Your task to perform on an android device: allow notifications from all sites in the chrome app Image 0: 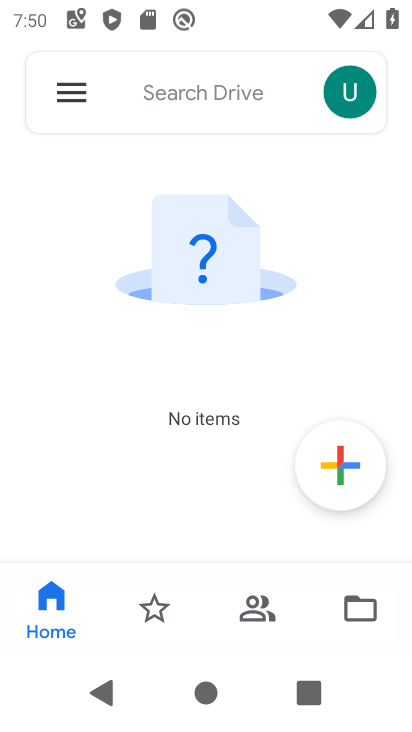
Step 0: press home button
Your task to perform on an android device: allow notifications from all sites in the chrome app Image 1: 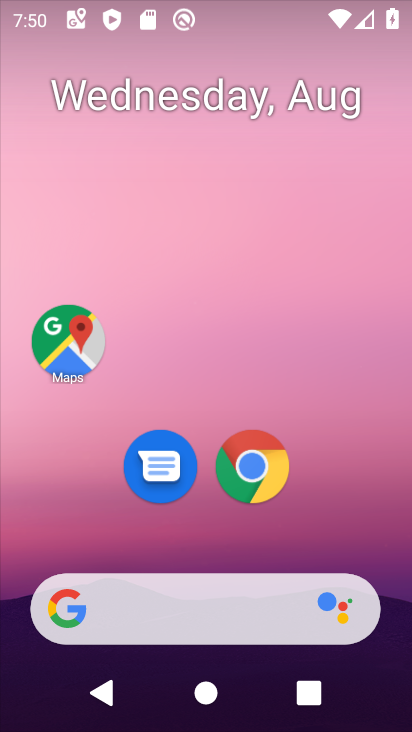
Step 1: drag from (333, 506) to (282, 29)
Your task to perform on an android device: allow notifications from all sites in the chrome app Image 2: 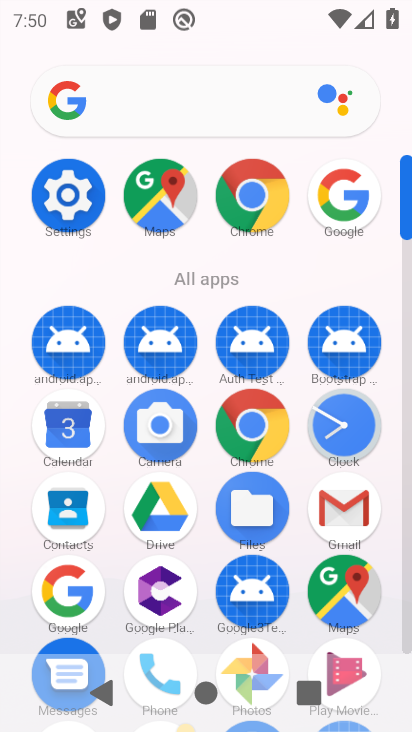
Step 2: click (260, 425)
Your task to perform on an android device: allow notifications from all sites in the chrome app Image 3: 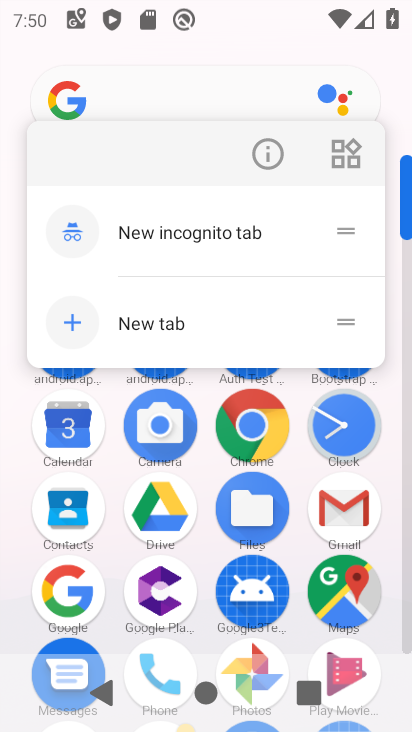
Step 3: click (258, 425)
Your task to perform on an android device: allow notifications from all sites in the chrome app Image 4: 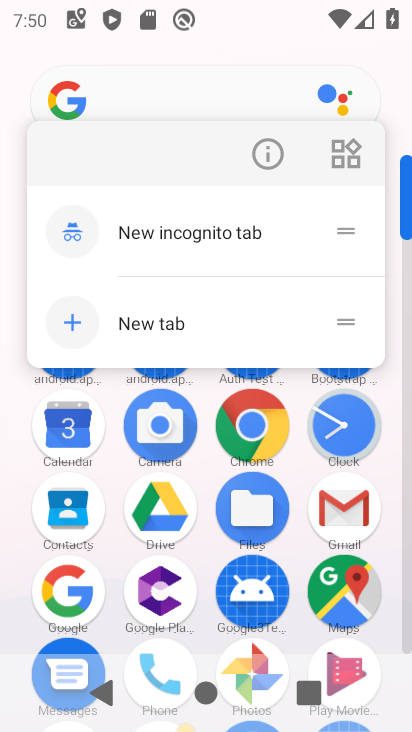
Step 4: click (253, 425)
Your task to perform on an android device: allow notifications from all sites in the chrome app Image 5: 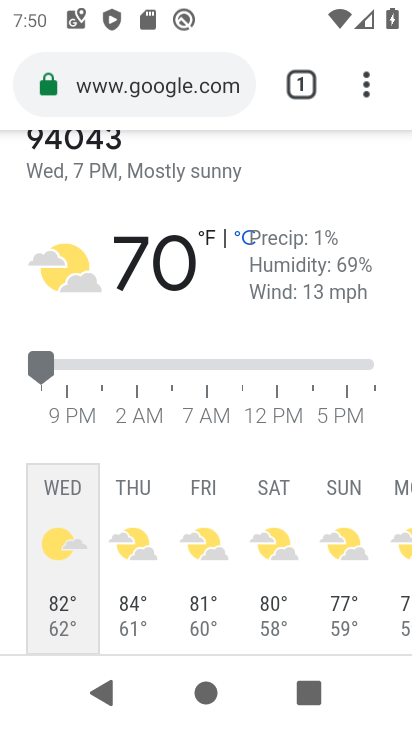
Step 5: drag from (374, 68) to (159, 514)
Your task to perform on an android device: allow notifications from all sites in the chrome app Image 6: 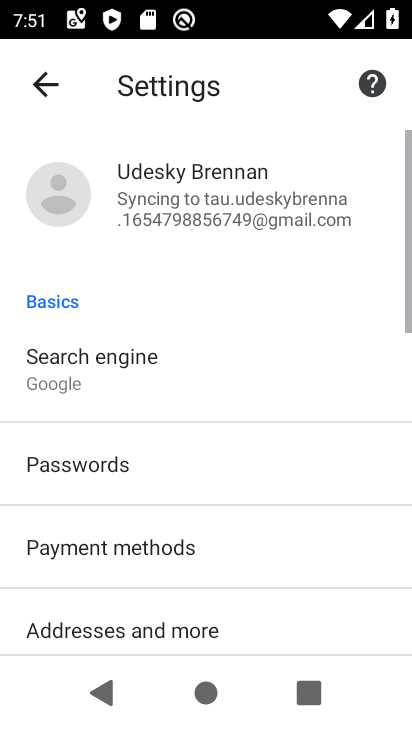
Step 6: drag from (320, 588) to (296, 108)
Your task to perform on an android device: allow notifications from all sites in the chrome app Image 7: 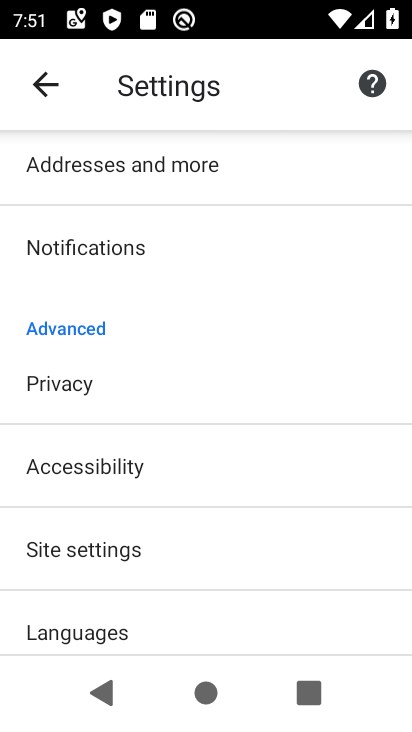
Step 7: drag from (289, 561) to (216, 505)
Your task to perform on an android device: allow notifications from all sites in the chrome app Image 8: 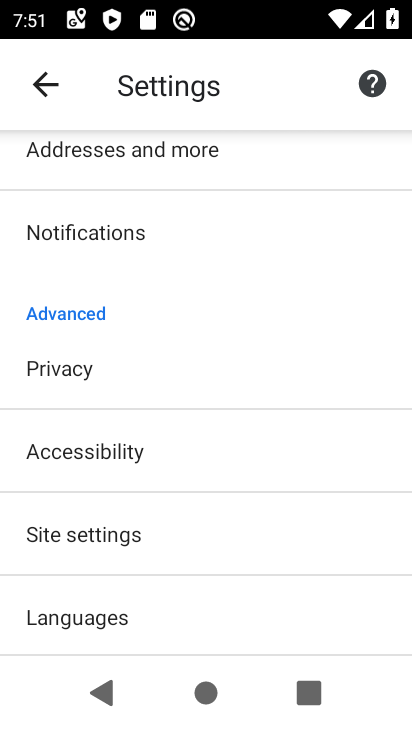
Step 8: drag from (210, 200) to (225, 411)
Your task to perform on an android device: allow notifications from all sites in the chrome app Image 9: 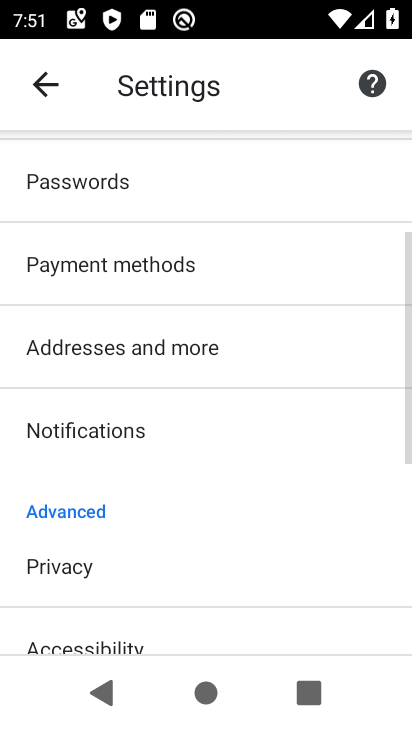
Step 9: click (88, 408)
Your task to perform on an android device: allow notifications from all sites in the chrome app Image 10: 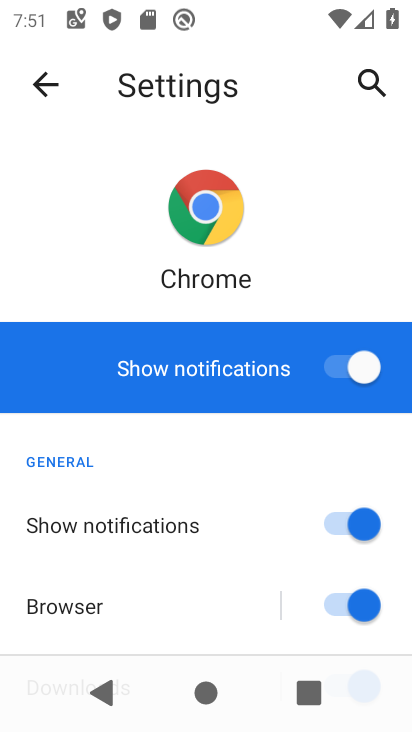
Step 10: task complete